Your task to perform on an android device: snooze an email in the gmail app Image 0: 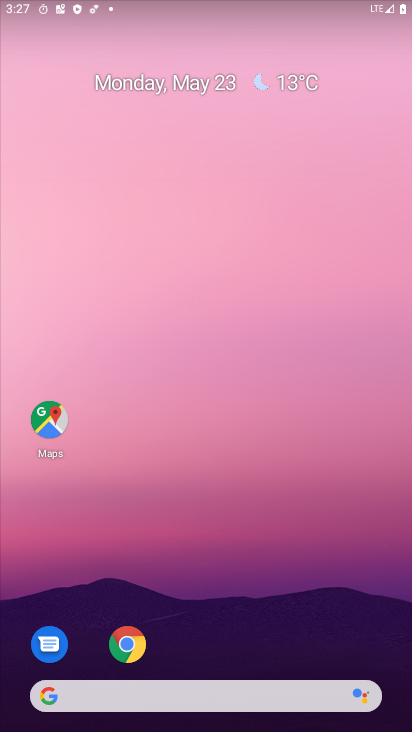
Step 0: drag from (214, 680) to (181, 102)
Your task to perform on an android device: snooze an email in the gmail app Image 1: 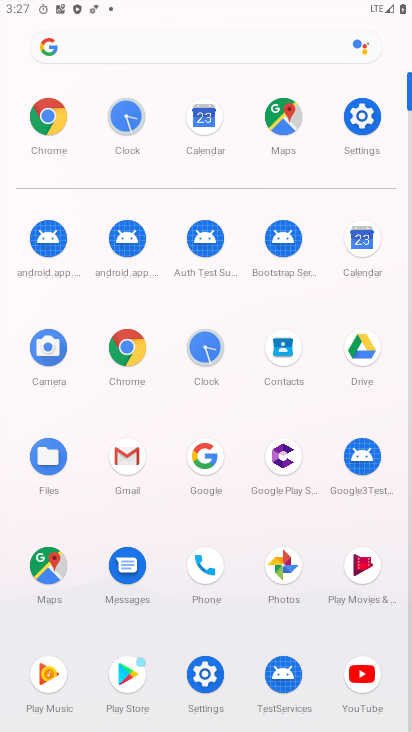
Step 1: click (109, 456)
Your task to perform on an android device: snooze an email in the gmail app Image 2: 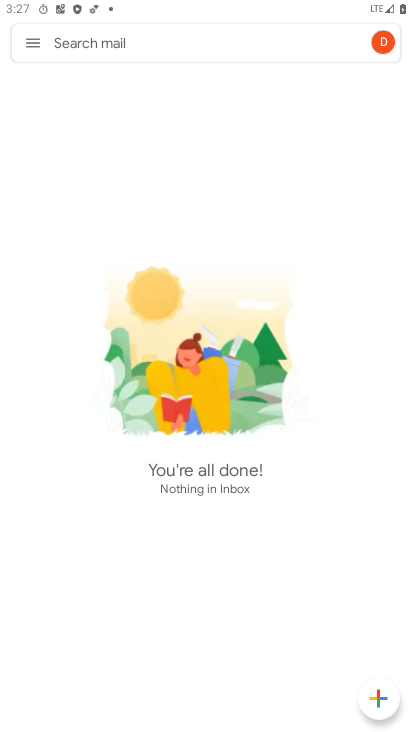
Step 2: click (32, 44)
Your task to perform on an android device: snooze an email in the gmail app Image 3: 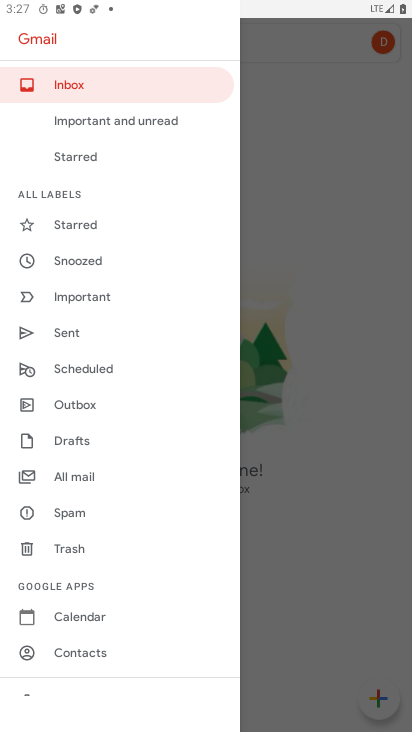
Step 3: click (88, 263)
Your task to perform on an android device: snooze an email in the gmail app Image 4: 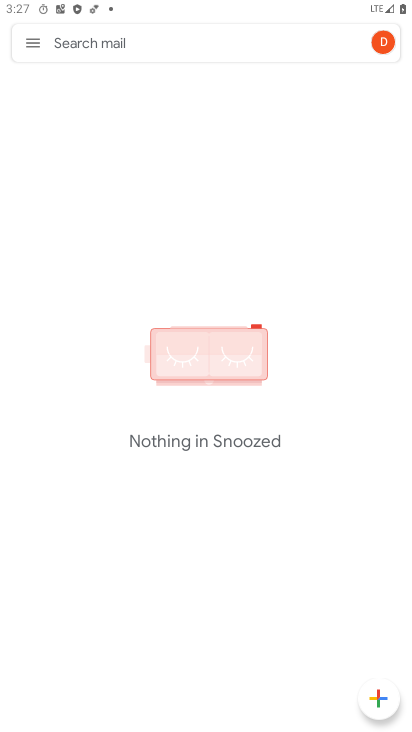
Step 4: press home button
Your task to perform on an android device: snooze an email in the gmail app Image 5: 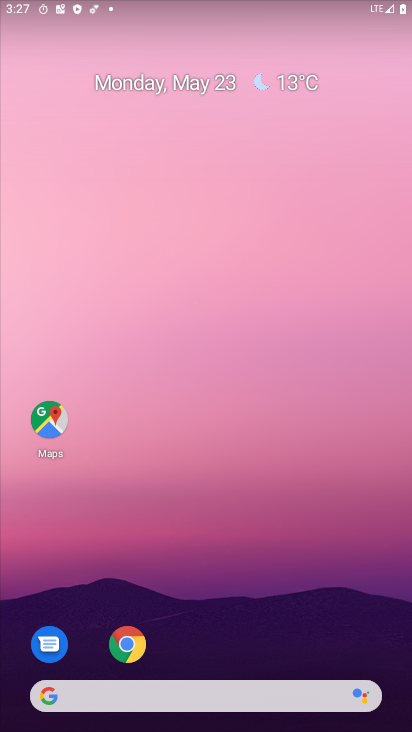
Step 5: drag from (188, 673) to (253, 114)
Your task to perform on an android device: snooze an email in the gmail app Image 6: 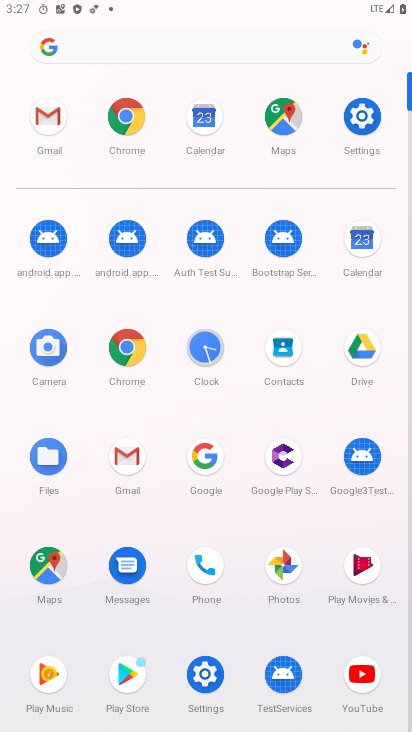
Step 6: click (135, 463)
Your task to perform on an android device: snooze an email in the gmail app Image 7: 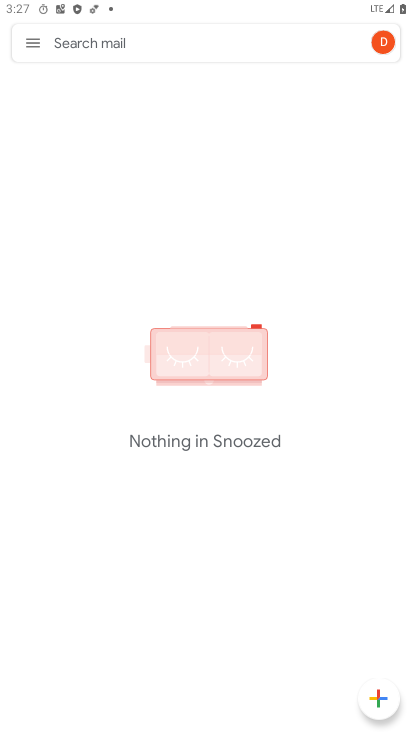
Step 7: click (33, 38)
Your task to perform on an android device: snooze an email in the gmail app Image 8: 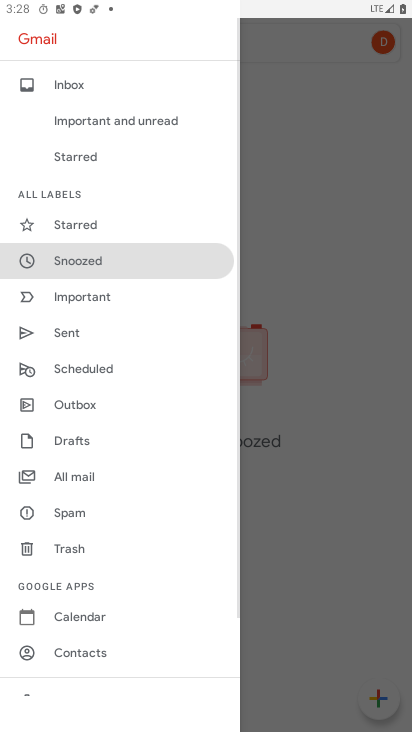
Step 8: click (78, 249)
Your task to perform on an android device: snooze an email in the gmail app Image 9: 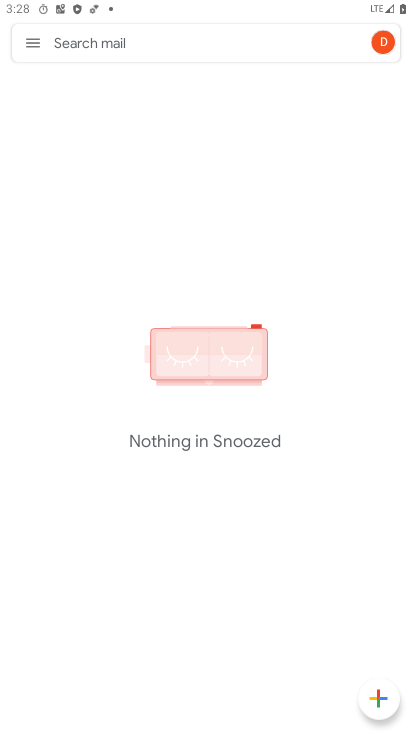
Step 9: task complete